Your task to perform on an android device: Open wifi settings Image 0: 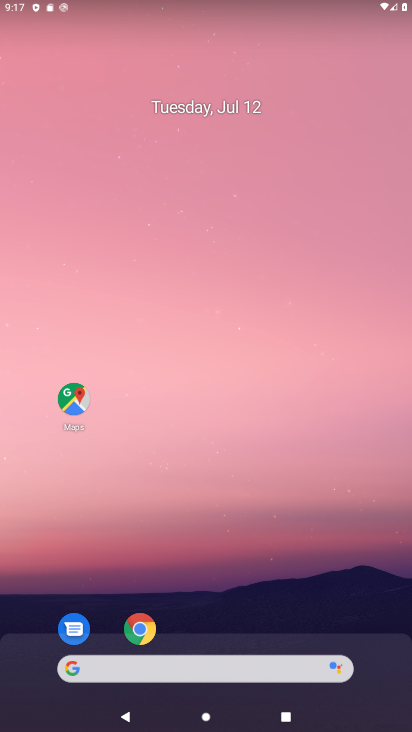
Step 0: drag from (243, 560) to (258, 214)
Your task to perform on an android device: Open wifi settings Image 1: 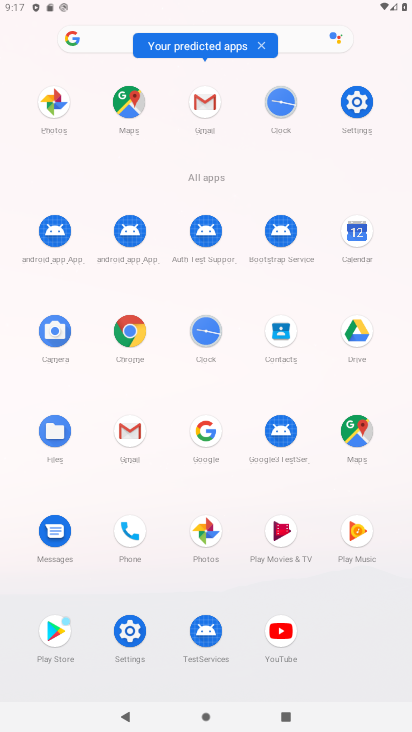
Step 1: click (133, 637)
Your task to perform on an android device: Open wifi settings Image 2: 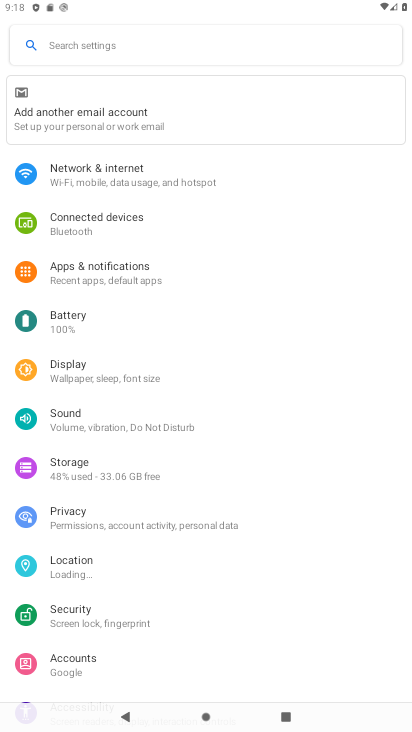
Step 2: click (139, 187)
Your task to perform on an android device: Open wifi settings Image 3: 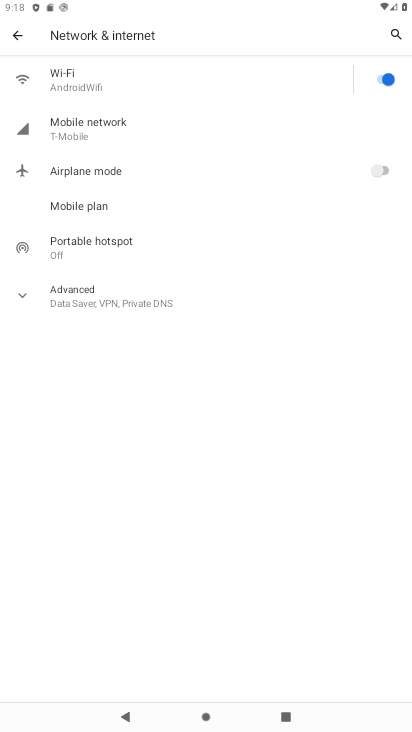
Step 3: click (111, 87)
Your task to perform on an android device: Open wifi settings Image 4: 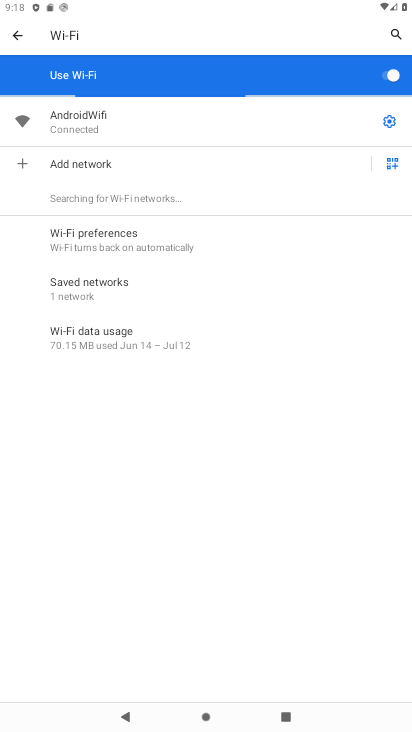
Step 4: task complete